Your task to perform on an android device: turn off javascript in the chrome app Image 0: 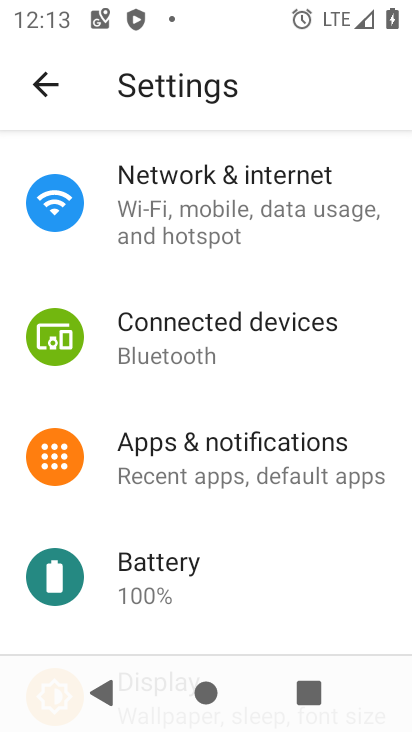
Step 0: press home button
Your task to perform on an android device: turn off javascript in the chrome app Image 1: 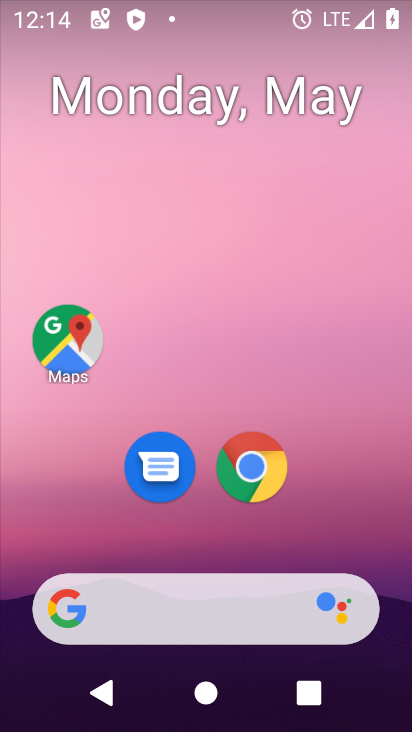
Step 1: click (261, 477)
Your task to perform on an android device: turn off javascript in the chrome app Image 2: 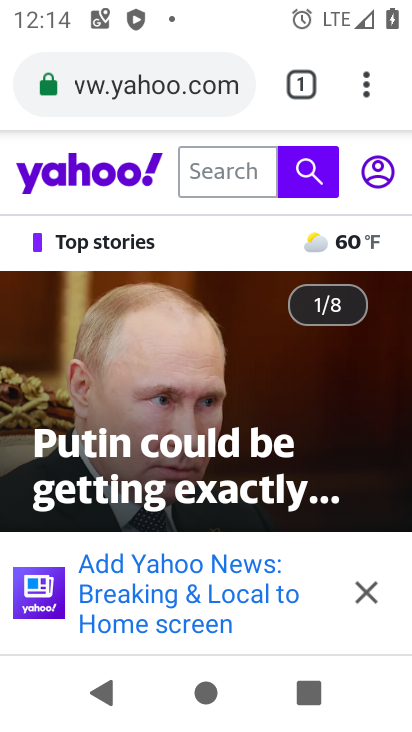
Step 2: click (369, 89)
Your task to perform on an android device: turn off javascript in the chrome app Image 3: 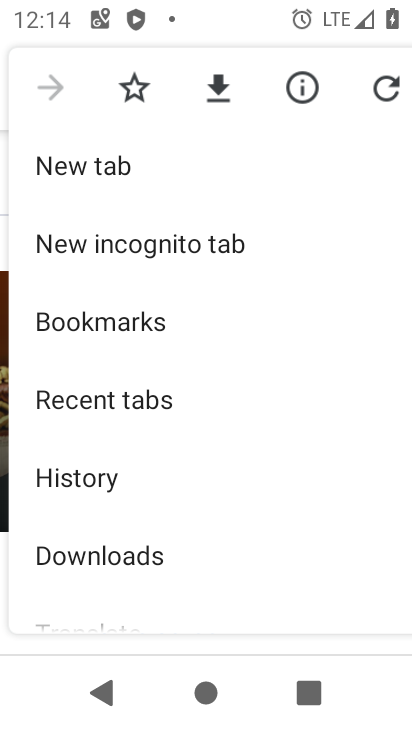
Step 3: drag from (210, 508) to (174, 127)
Your task to perform on an android device: turn off javascript in the chrome app Image 4: 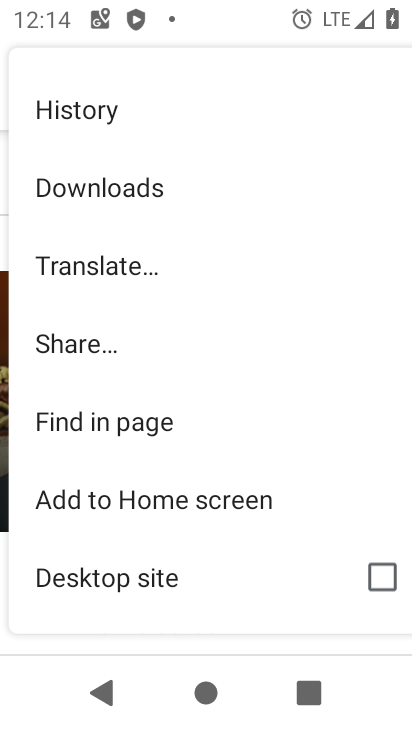
Step 4: drag from (227, 513) to (201, 167)
Your task to perform on an android device: turn off javascript in the chrome app Image 5: 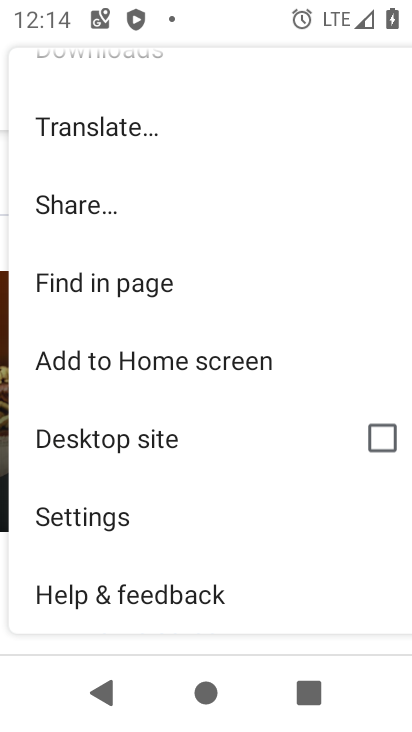
Step 5: click (61, 525)
Your task to perform on an android device: turn off javascript in the chrome app Image 6: 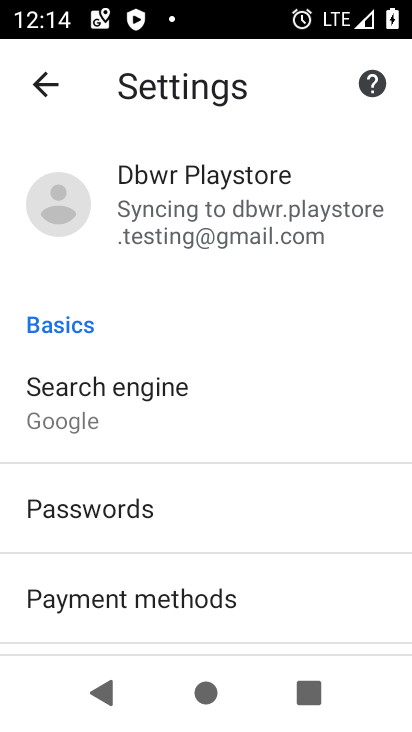
Step 6: drag from (258, 527) to (218, 130)
Your task to perform on an android device: turn off javascript in the chrome app Image 7: 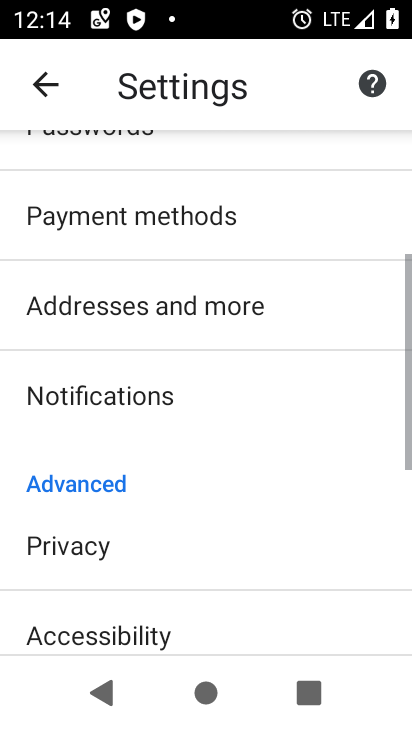
Step 7: drag from (249, 507) to (234, 114)
Your task to perform on an android device: turn off javascript in the chrome app Image 8: 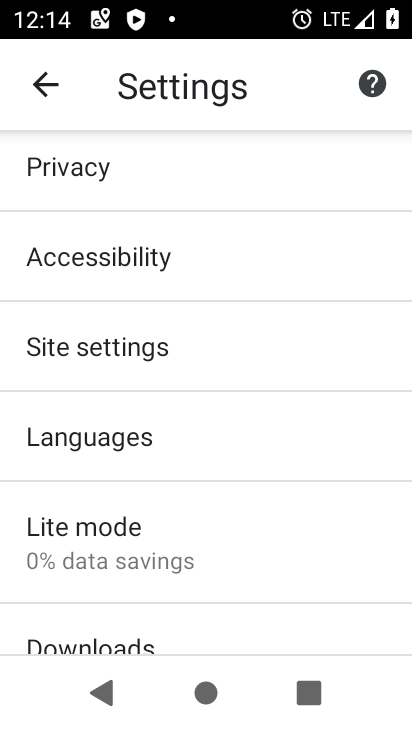
Step 8: click (64, 359)
Your task to perform on an android device: turn off javascript in the chrome app Image 9: 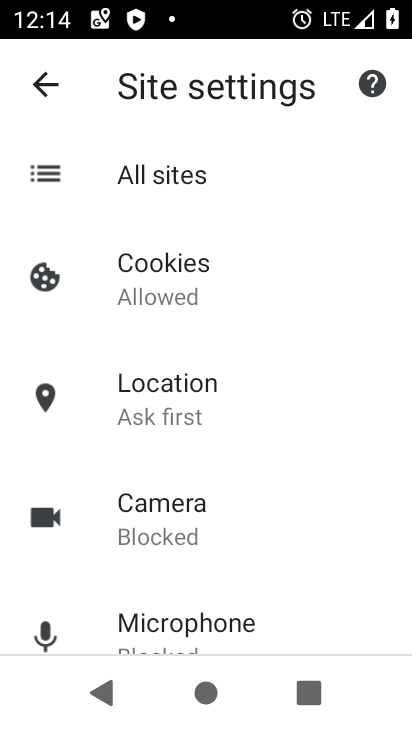
Step 9: drag from (292, 593) to (276, 256)
Your task to perform on an android device: turn off javascript in the chrome app Image 10: 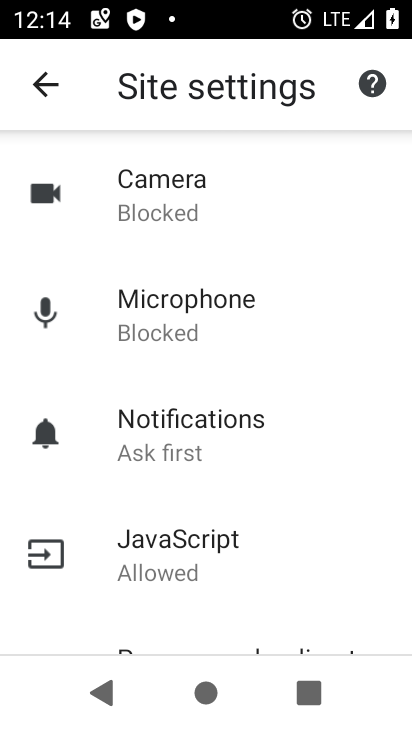
Step 10: click (155, 545)
Your task to perform on an android device: turn off javascript in the chrome app Image 11: 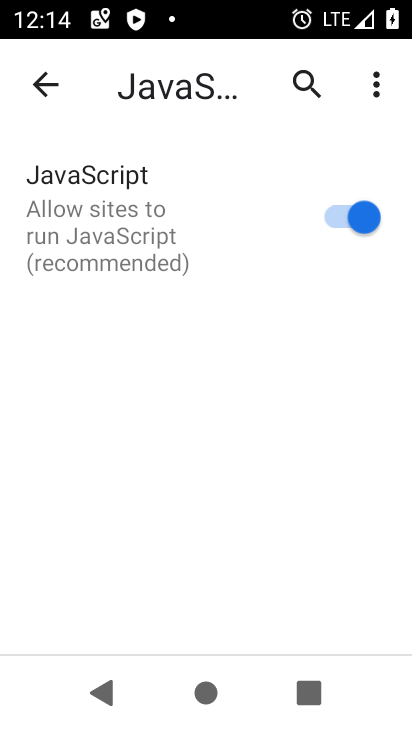
Step 11: click (365, 215)
Your task to perform on an android device: turn off javascript in the chrome app Image 12: 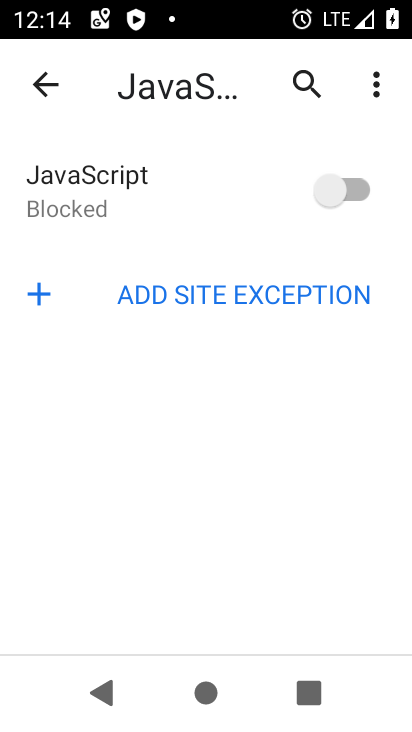
Step 12: task complete